Your task to perform on an android device: open device folders in google photos Image 0: 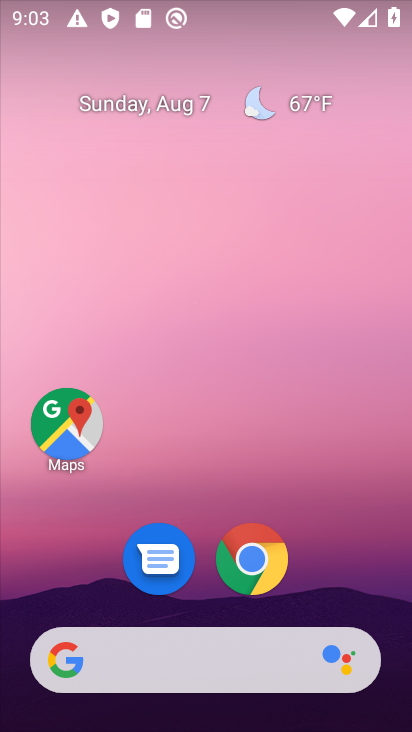
Step 0: drag from (262, 635) to (125, 168)
Your task to perform on an android device: open device folders in google photos Image 1: 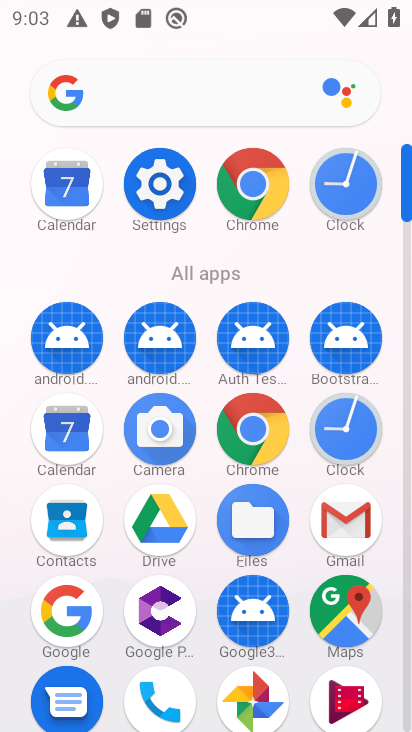
Step 1: click (259, 688)
Your task to perform on an android device: open device folders in google photos Image 2: 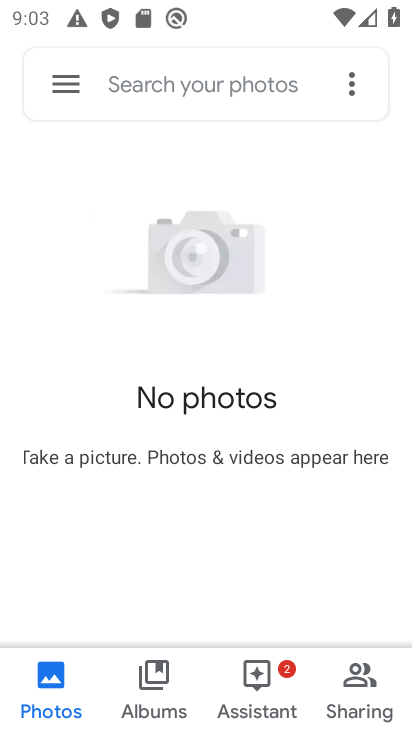
Step 2: click (73, 80)
Your task to perform on an android device: open device folders in google photos Image 3: 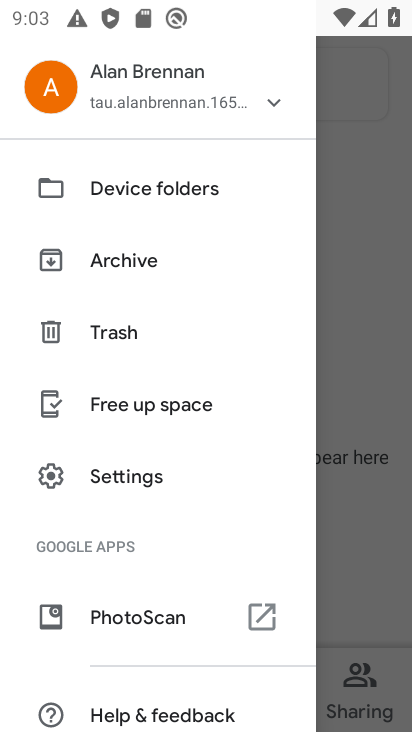
Step 3: task complete